Your task to perform on an android device: Go to display settings Image 0: 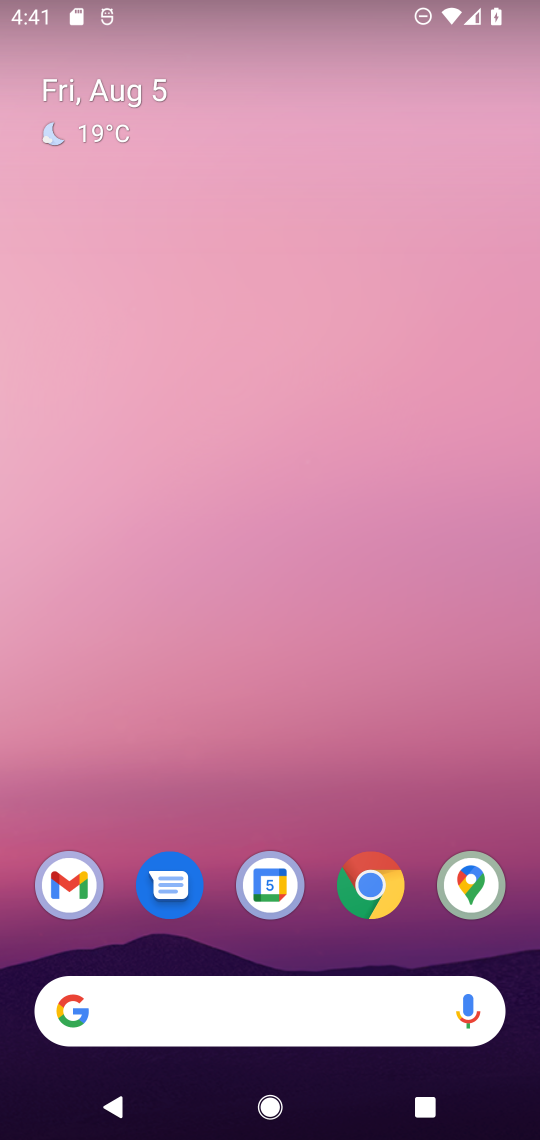
Step 0: drag from (300, 626) to (298, 167)
Your task to perform on an android device: Go to display settings Image 1: 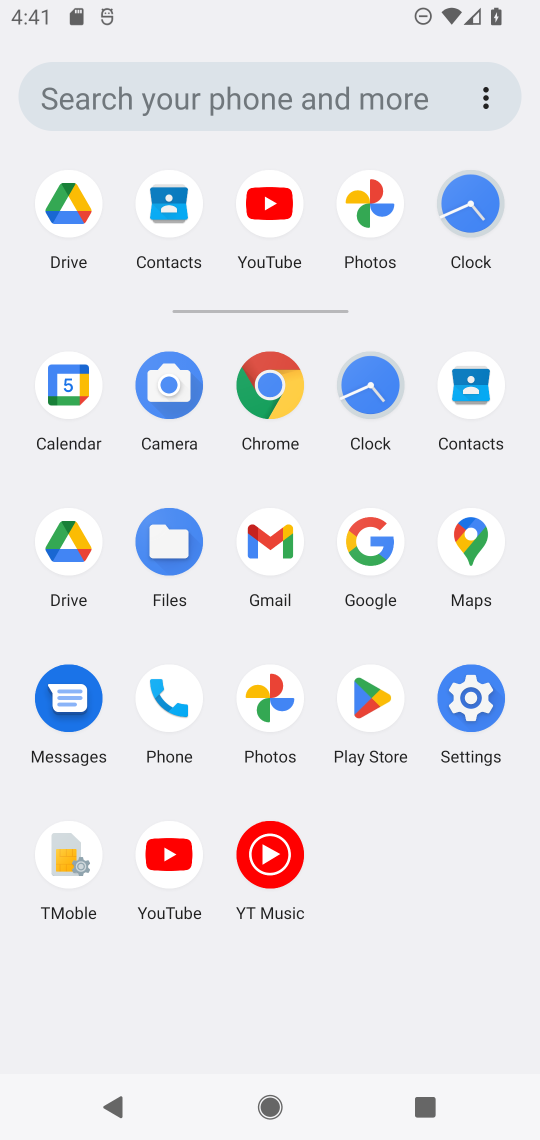
Step 1: click (477, 692)
Your task to perform on an android device: Go to display settings Image 2: 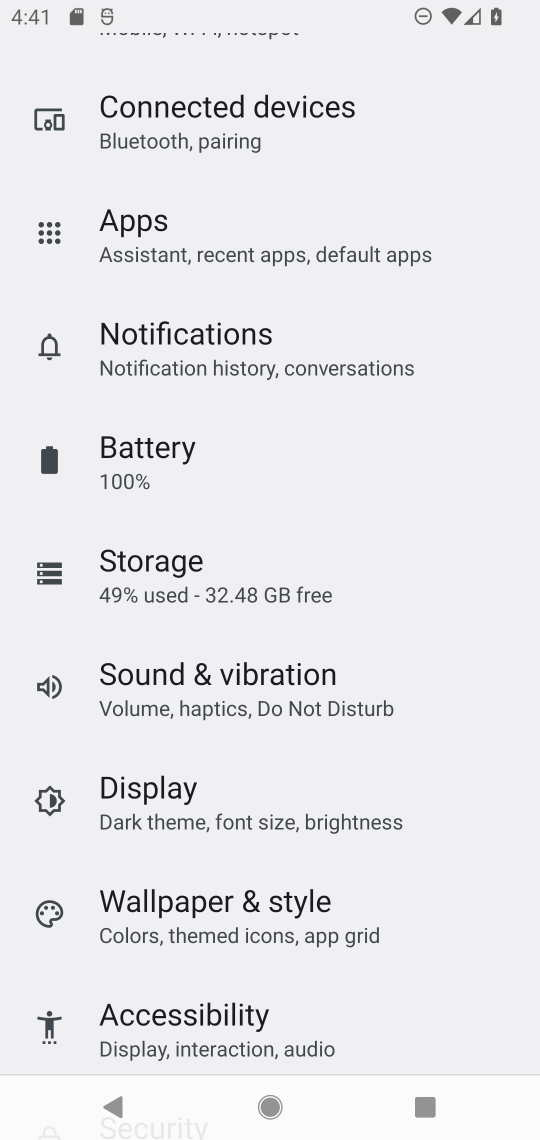
Step 2: drag from (230, 771) to (231, 520)
Your task to perform on an android device: Go to display settings Image 3: 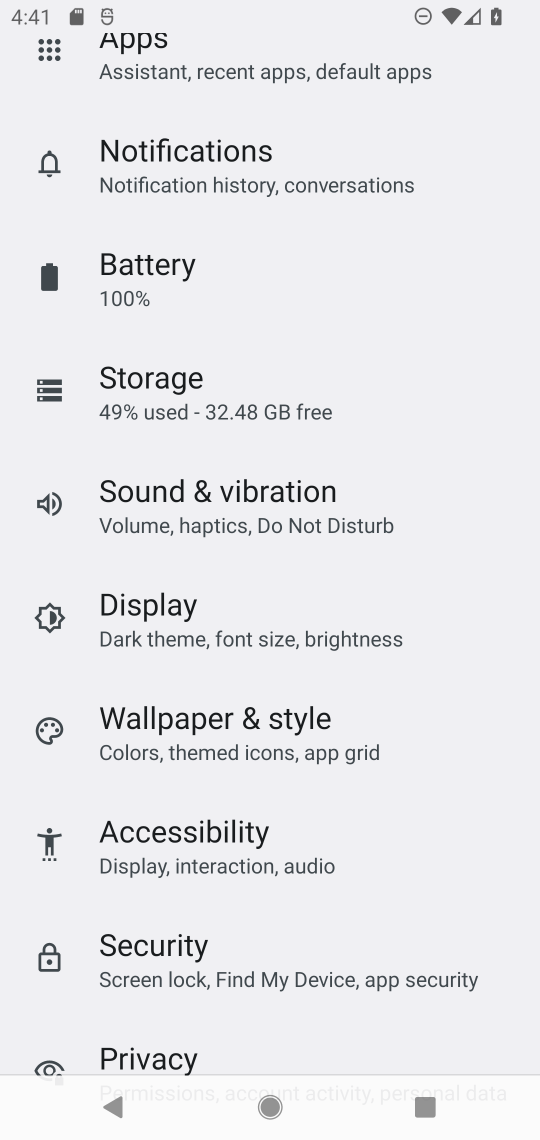
Step 3: drag from (277, 221) to (284, 891)
Your task to perform on an android device: Go to display settings Image 4: 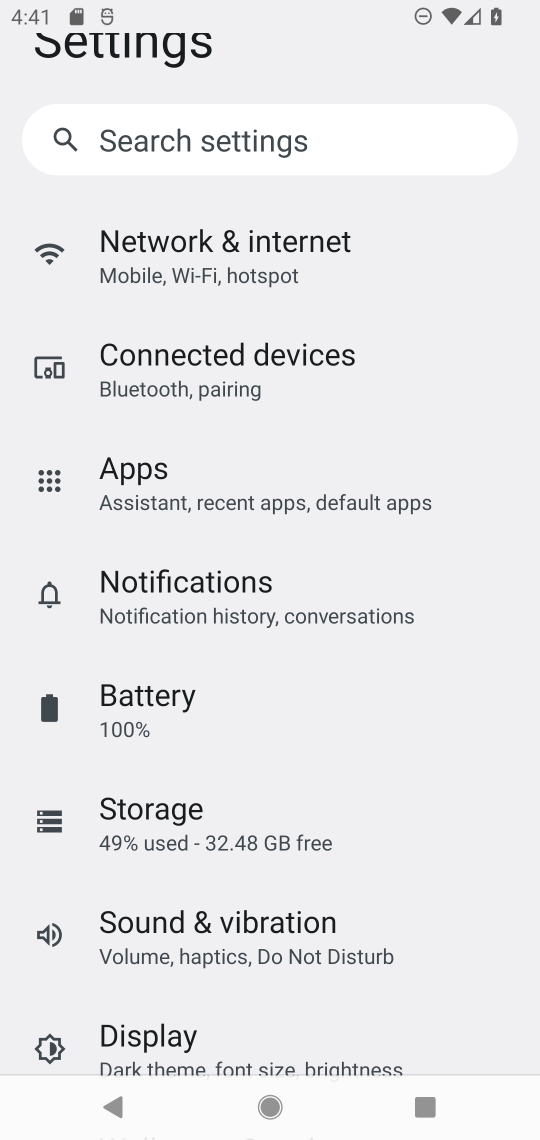
Step 4: click (144, 1042)
Your task to perform on an android device: Go to display settings Image 5: 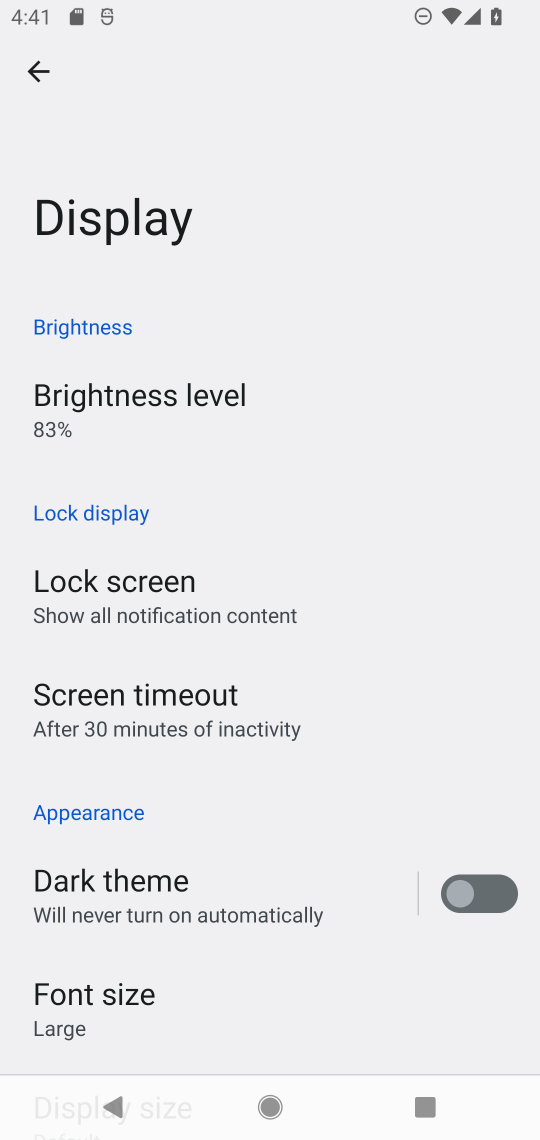
Step 5: task complete